Your task to perform on an android device: Search for seafood restaurants on Google Maps Image 0: 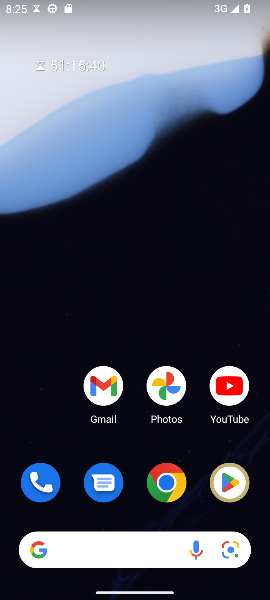
Step 0: drag from (41, 471) to (50, 148)
Your task to perform on an android device: Search for seafood restaurants on Google Maps Image 1: 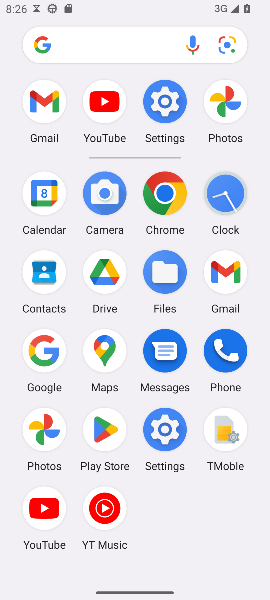
Step 1: click (109, 356)
Your task to perform on an android device: Search for seafood restaurants on Google Maps Image 2: 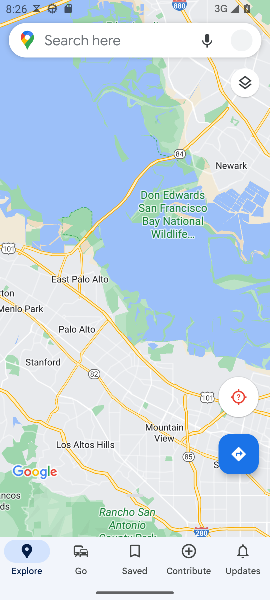
Step 2: click (97, 37)
Your task to perform on an android device: Search for seafood restaurants on Google Maps Image 3: 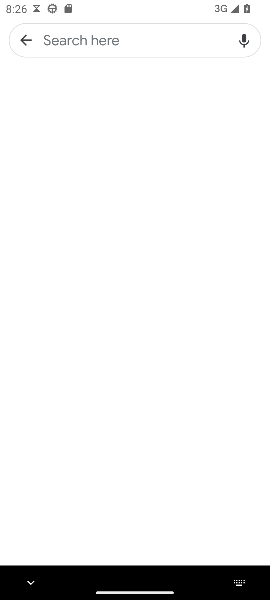
Step 3: type "seafood restaurants"
Your task to perform on an android device: Search for seafood restaurants on Google Maps Image 4: 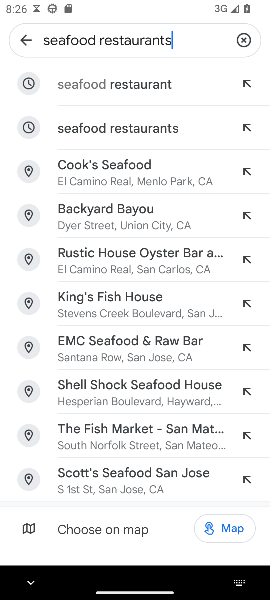
Step 4: click (49, 89)
Your task to perform on an android device: Search for seafood restaurants on Google Maps Image 5: 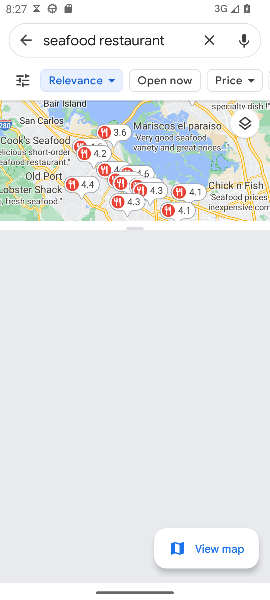
Step 5: task complete